Your task to perform on an android device: turn on airplane mode Image 0: 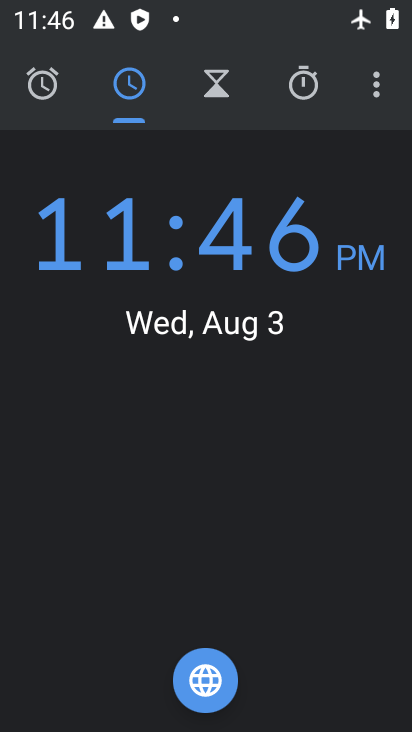
Step 0: press back button
Your task to perform on an android device: turn on airplane mode Image 1: 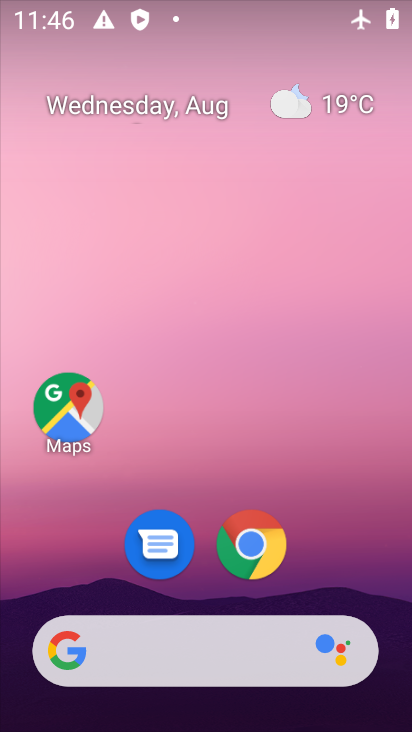
Step 1: drag from (388, 716) to (260, 87)
Your task to perform on an android device: turn on airplane mode Image 2: 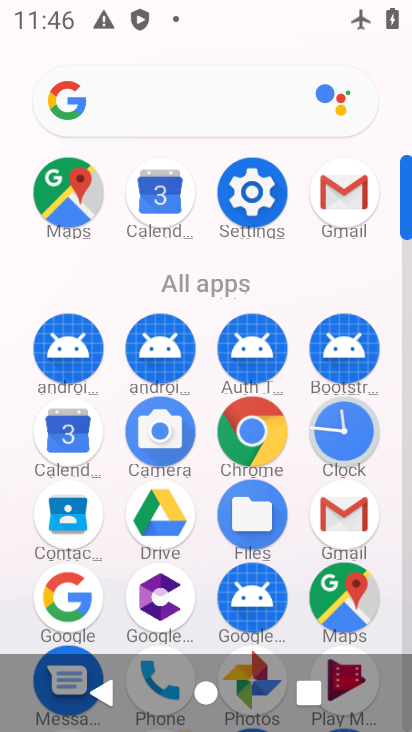
Step 2: click (248, 181)
Your task to perform on an android device: turn on airplane mode Image 3: 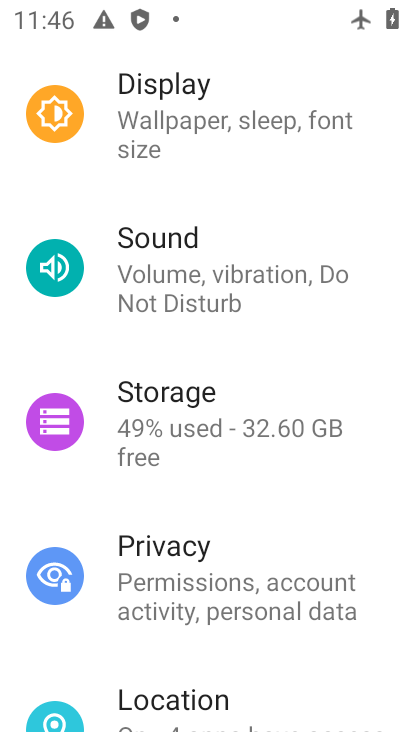
Step 3: drag from (267, 107) to (291, 541)
Your task to perform on an android device: turn on airplane mode Image 4: 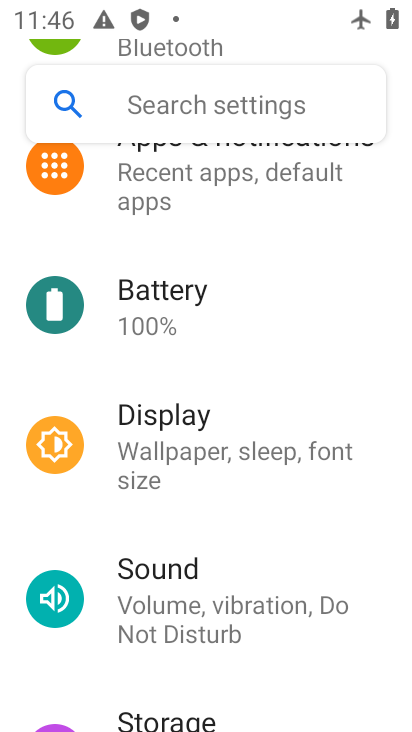
Step 4: drag from (239, 200) to (271, 614)
Your task to perform on an android device: turn on airplane mode Image 5: 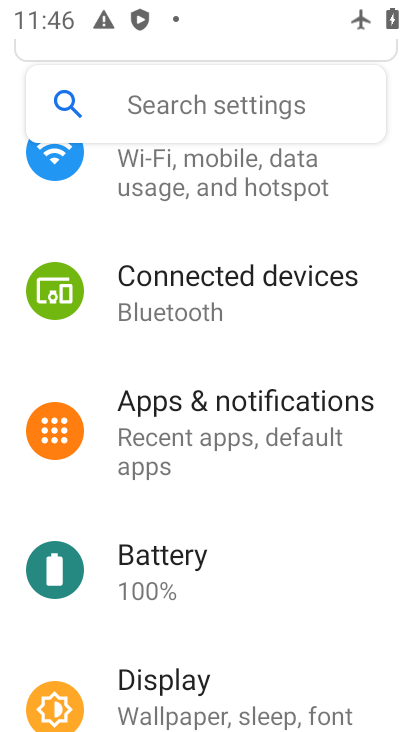
Step 5: click (190, 179)
Your task to perform on an android device: turn on airplane mode Image 6: 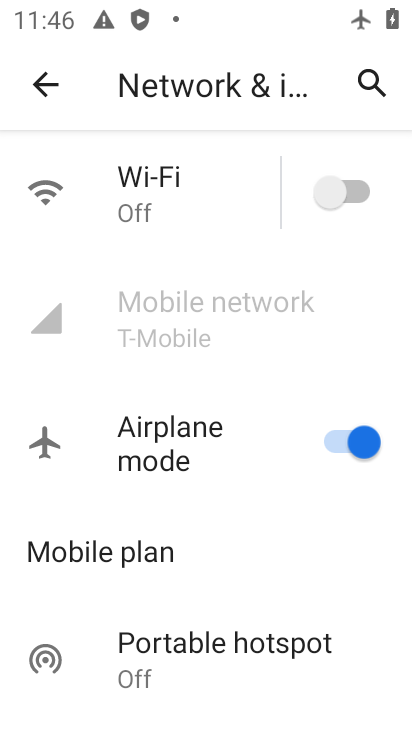
Step 6: task complete